Your task to perform on an android device: Find coffee shops on Maps Image 0: 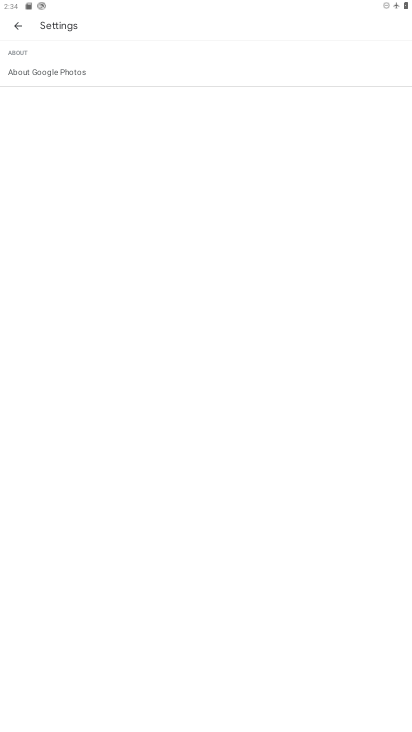
Step 0: press home button
Your task to perform on an android device: Find coffee shops on Maps Image 1: 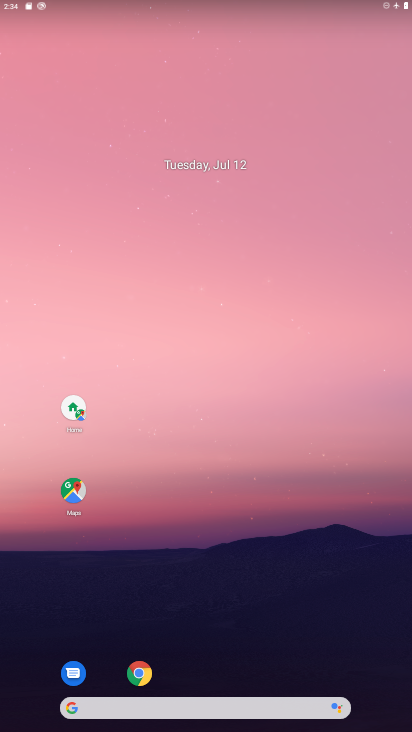
Step 1: click (65, 486)
Your task to perform on an android device: Find coffee shops on Maps Image 2: 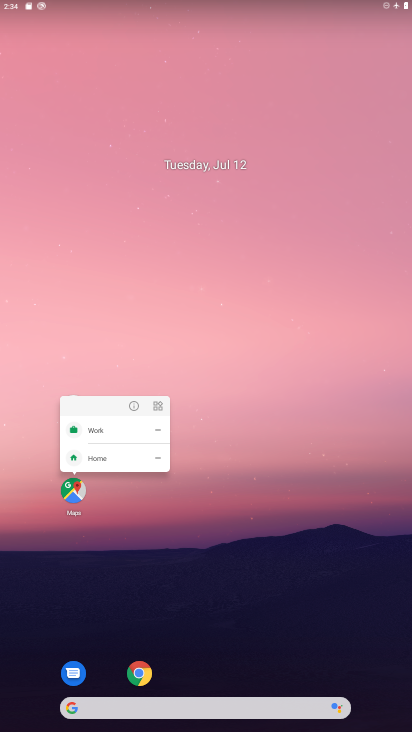
Step 2: click (65, 491)
Your task to perform on an android device: Find coffee shops on Maps Image 3: 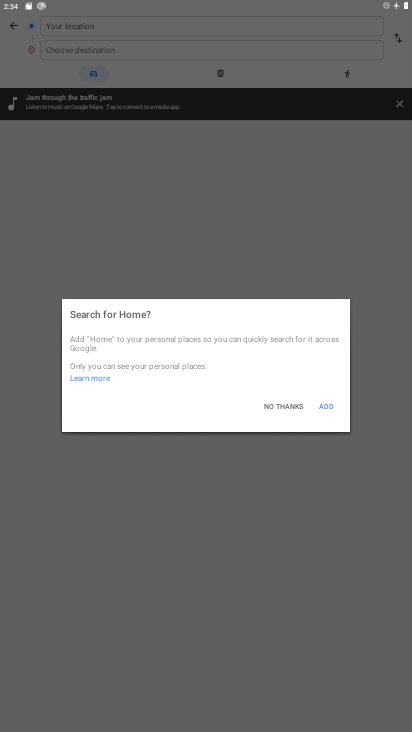
Step 3: click (293, 402)
Your task to perform on an android device: Find coffee shops on Maps Image 4: 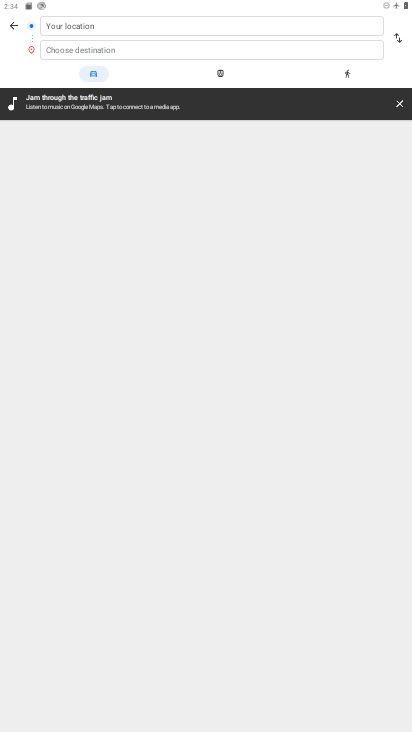
Step 4: click (14, 33)
Your task to perform on an android device: Find coffee shops on Maps Image 5: 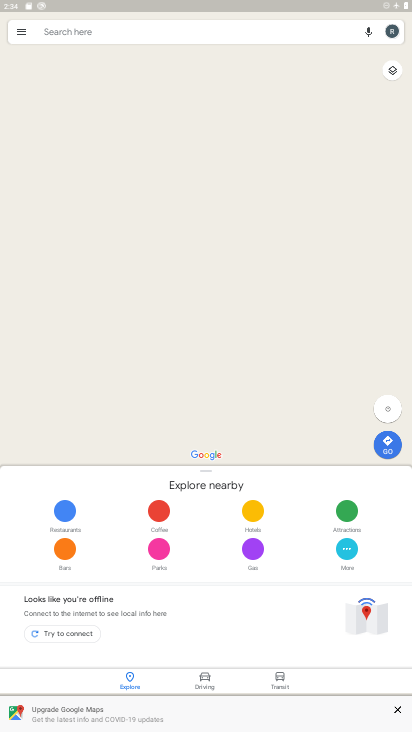
Step 5: click (155, 511)
Your task to perform on an android device: Find coffee shops on Maps Image 6: 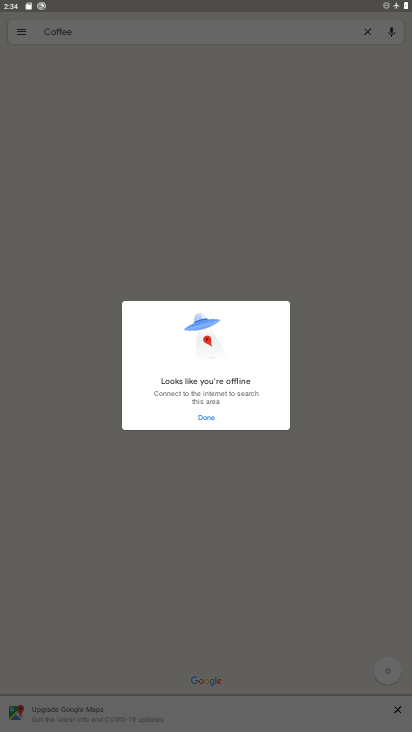
Step 6: task complete